Your task to perform on an android device: read, delete, or share a saved page in the chrome app Image 0: 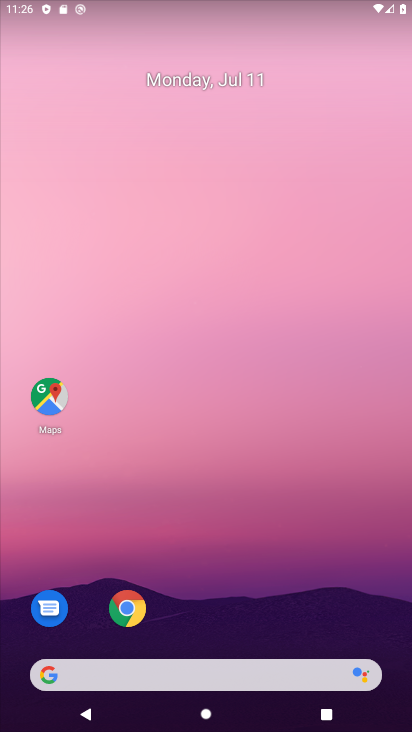
Step 0: click (133, 606)
Your task to perform on an android device: read, delete, or share a saved page in the chrome app Image 1: 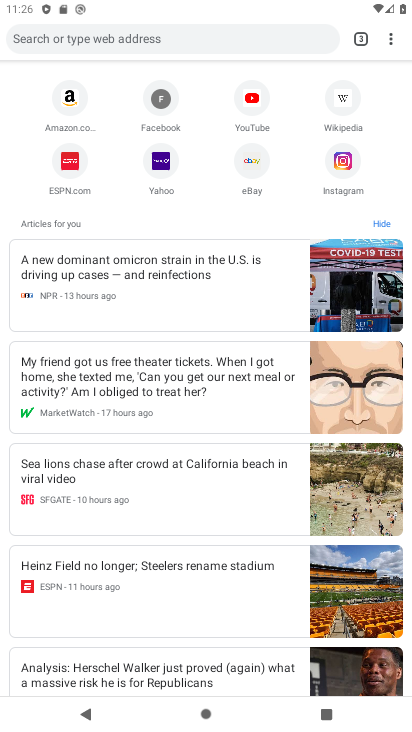
Step 1: click (396, 42)
Your task to perform on an android device: read, delete, or share a saved page in the chrome app Image 2: 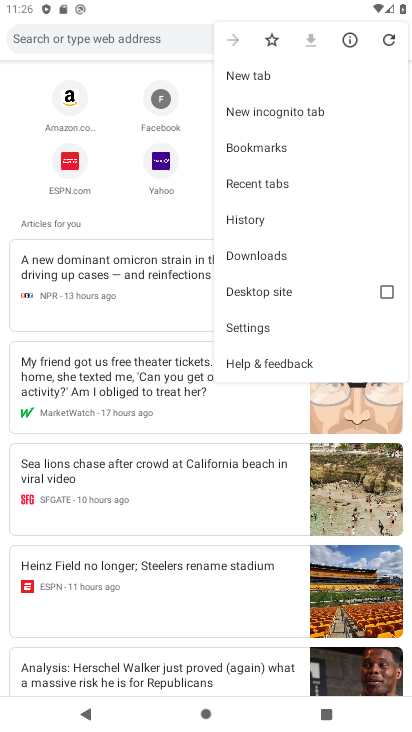
Step 2: click (245, 269)
Your task to perform on an android device: read, delete, or share a saved page in the chrome app Image 3: 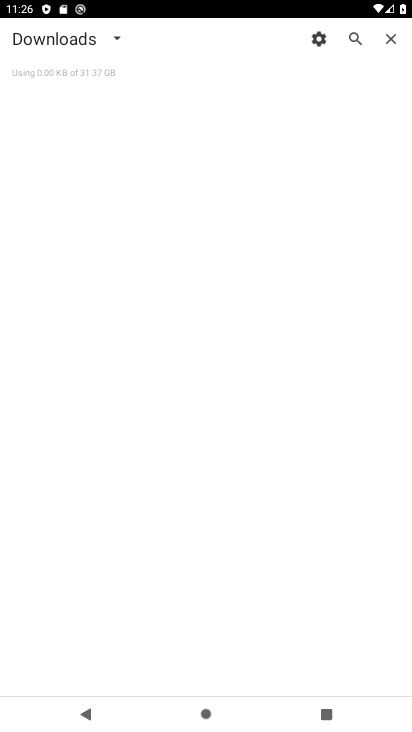
Step 3: task complete